Your task to perform on an android device: turn off wifi Image 0: 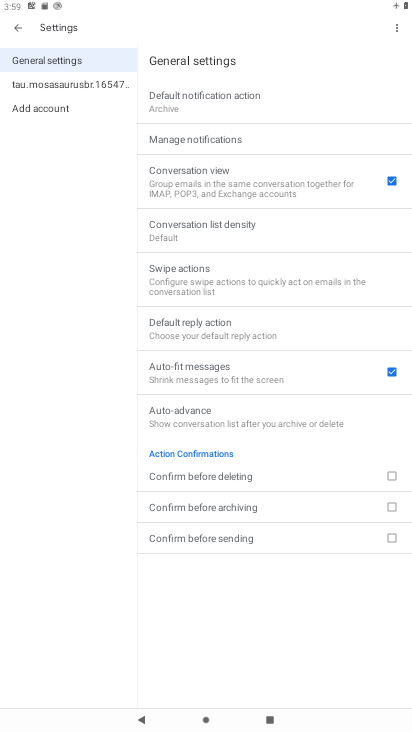
Step 0: press home button
Your task to perform on an android device: turn off wifi Image 1: 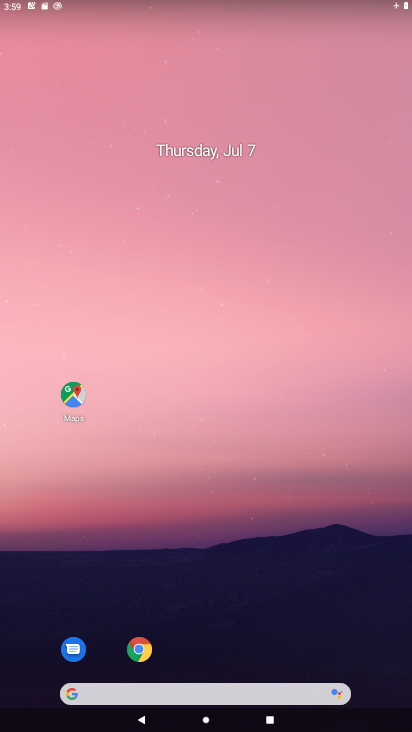
Step 1: drag from (365, 649) to (309, 189)
Your task to perform on an android device: turn off wifi Image 2: 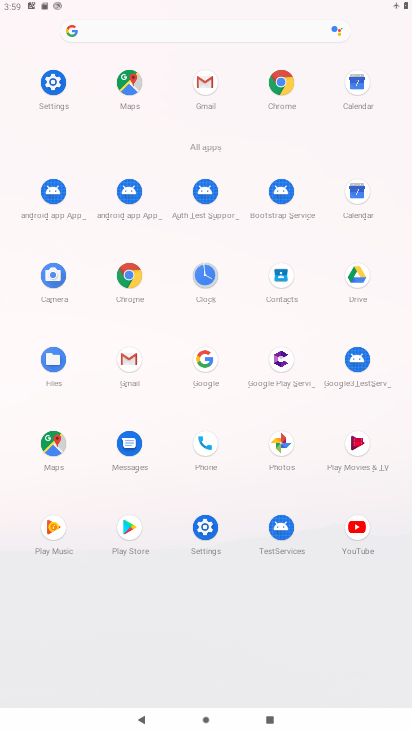
Step 2: click (203, 526)
Your task to perform on an android device: turn off wifi Image 3: 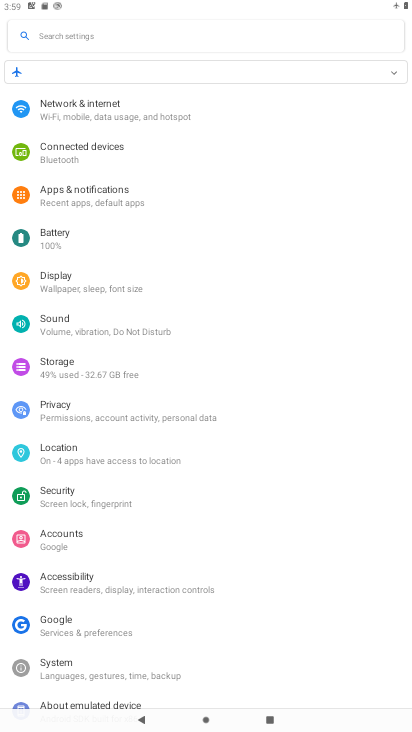
Step 3: click (73, 105)
Your task to perform on an android device: turn off wifi Image 4: 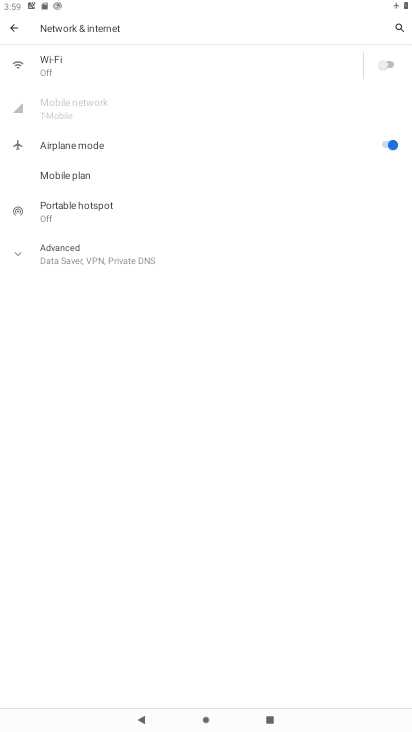
Step 4: task complete